Your task to perform on an android device: turn pop-ups on in chrome Image 0: 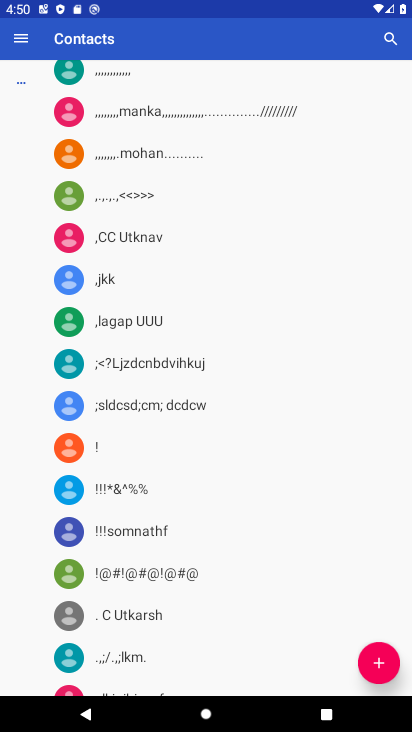
Step 0: press home button
Your task to perform on an android device: turn pop-ups on in chrome Image 1: 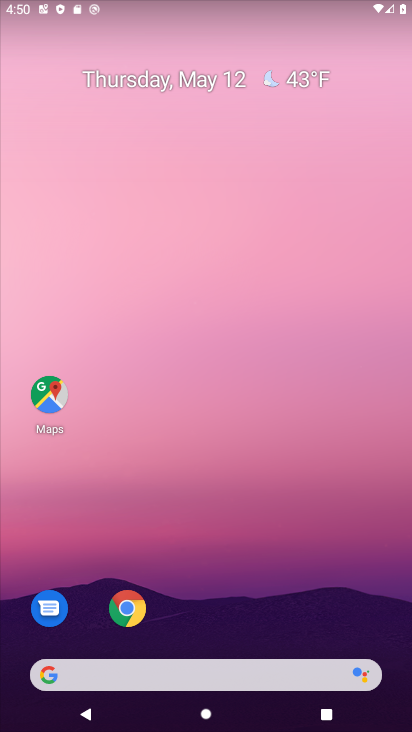
Step 1: click (131, 611)
Your task to perform on an android device: turn pop-ups on in chrome Image 2: 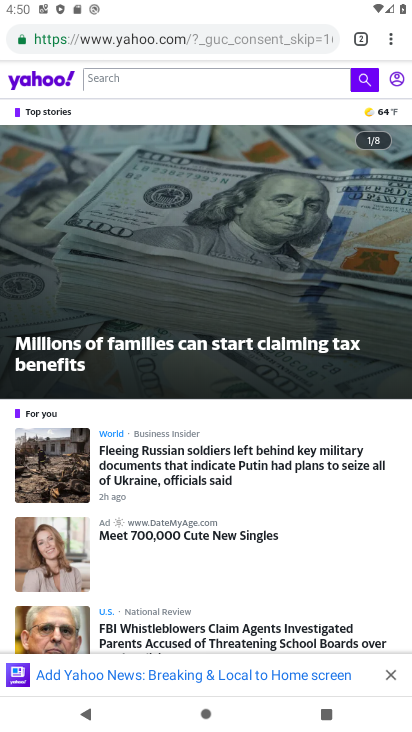
Step 2: drag from (392, 40) to (285, 475)
Your task to perform on an android device: turn pop-ups on in chrome Image 3: 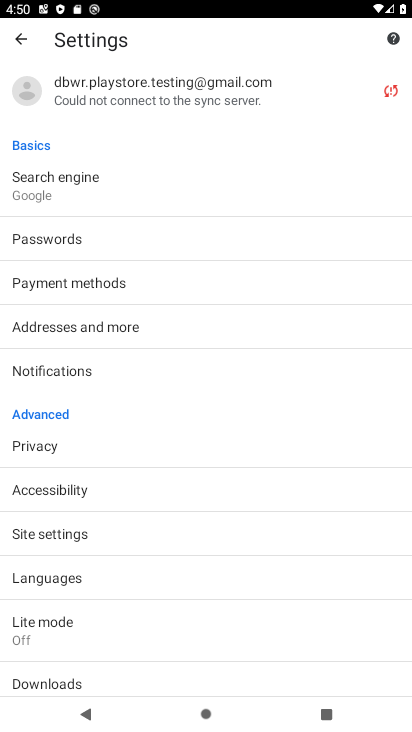
Step 3: click (41, 523)
Your task to perform on an android device: turn pop-ups on in chrome Image 4: 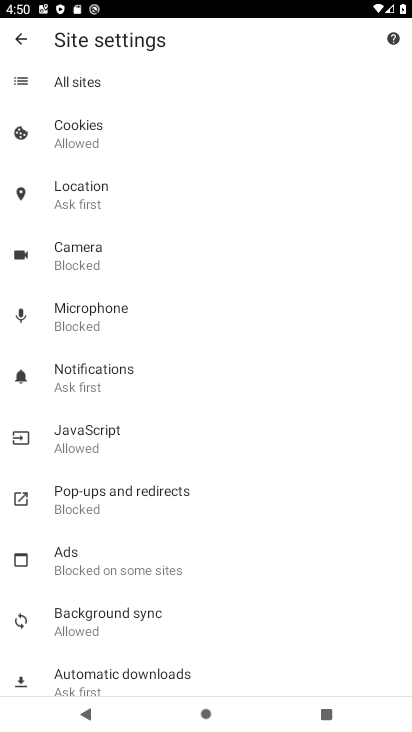
Step 4: click (144, 494)
Your task to perform on an android device: turn pop-ups on in chrome Image 5: 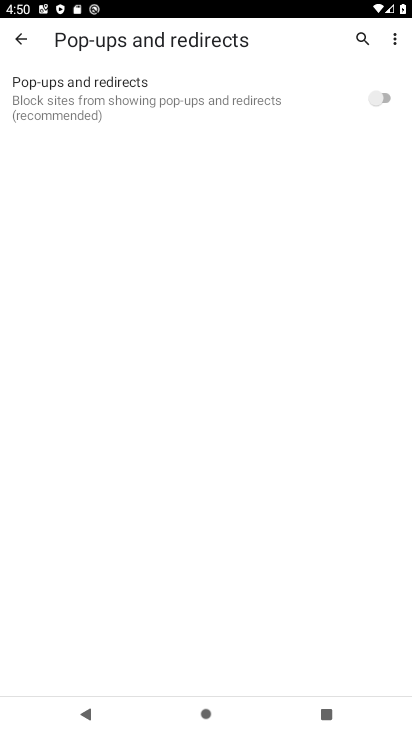
Step 5: click (377, 89)
Your task to perform on an android device: turn pop-ups on in chrome Image 6: 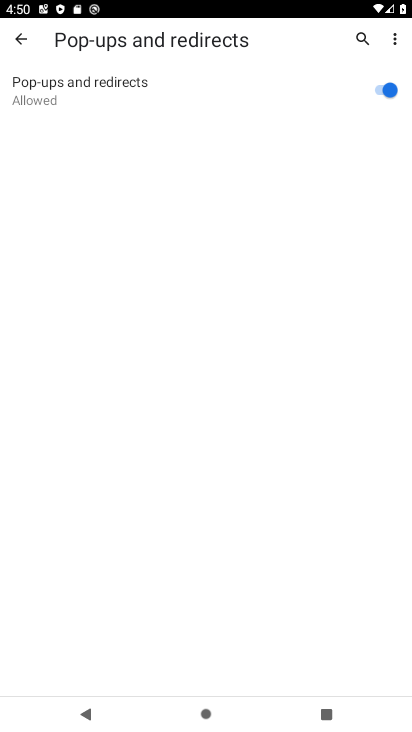
Step 6: task complete